Your task to perform on an android device: find which apps use the phone's location Image 0: 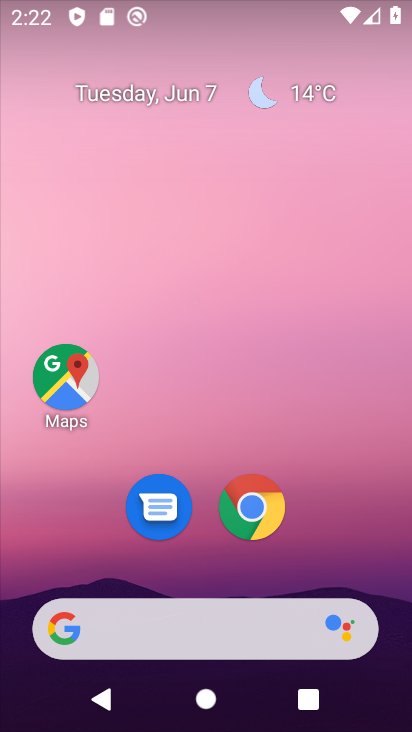
Step 0: drag from (347, 508) to (360, 84)
Your task to perform on an android device: find which apps use the phone's location Image 1: 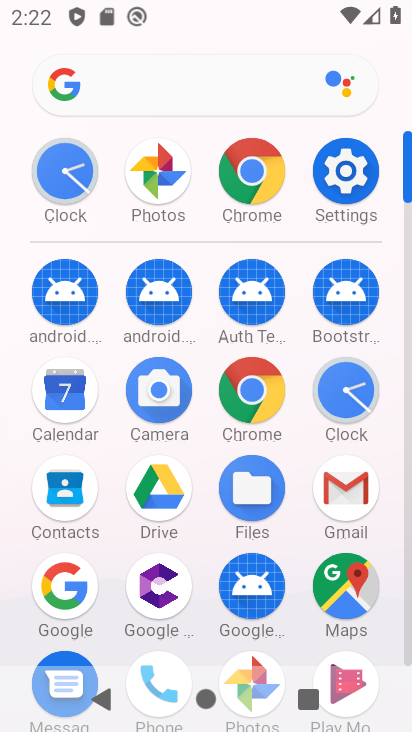
Step 1: click (350, 171)
Your task to perform on an android device: find which apps use the phone's location Image 2: 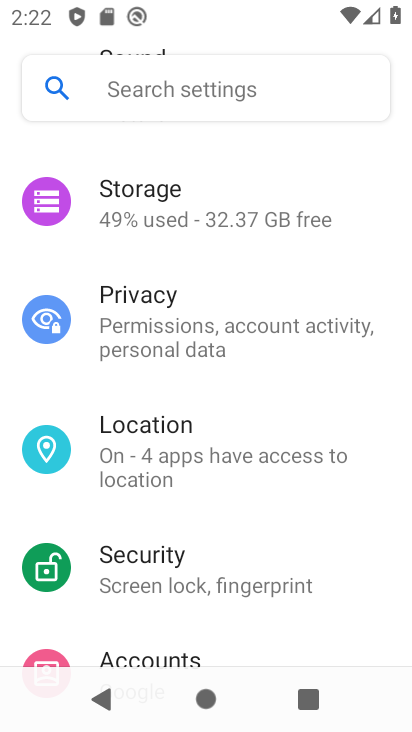
Step 2: click (214, 431)
Your task to perform on an android device: find which apps use the phone's location Image 3: 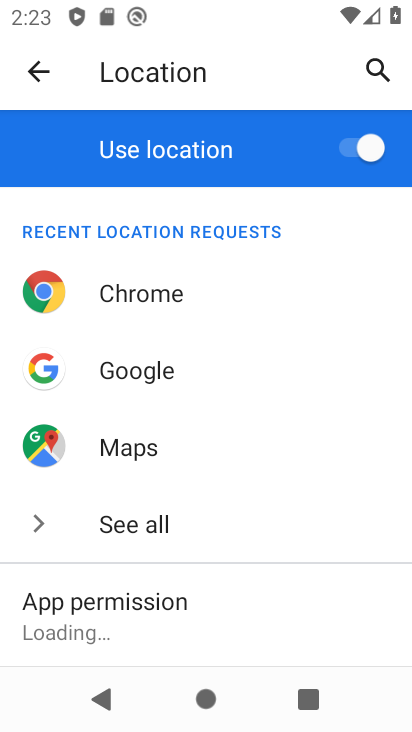
Step 3: drag from (223, 559) to (257, 158)
Your task to perform on an android device: find which apps use the phone's location Image 4: 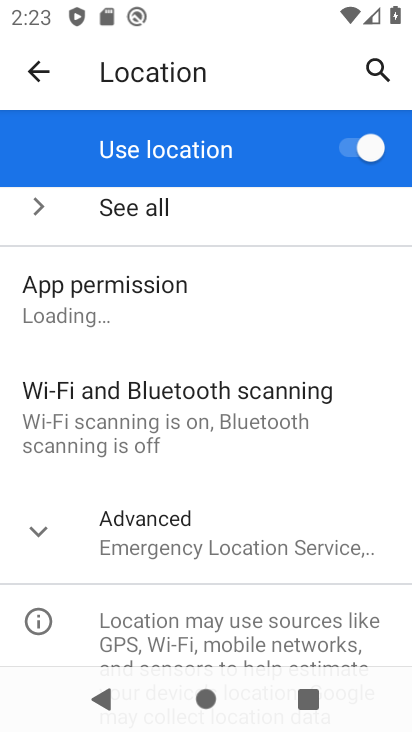
Step 4: drag from (239, 277) to (181, 597)
Your task to perform on an android device: find which apps use the phone's location Image 5: 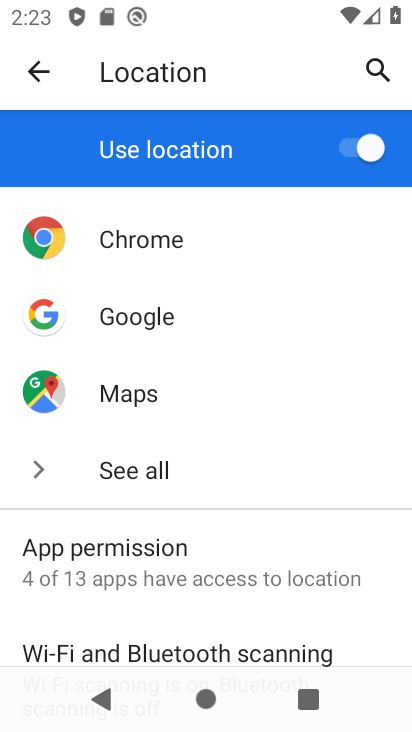
Step 5: click (132, 580)
Your task to perform on an android device: find which apps use the phone's location Image 6: 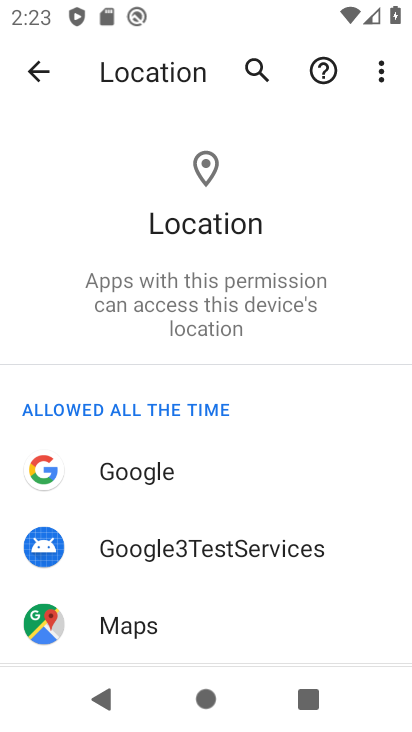
Step 6: drag from (162, 552) to (215, 334)
Your task to perform on an android device: find which apps use the phone's location Image 7: 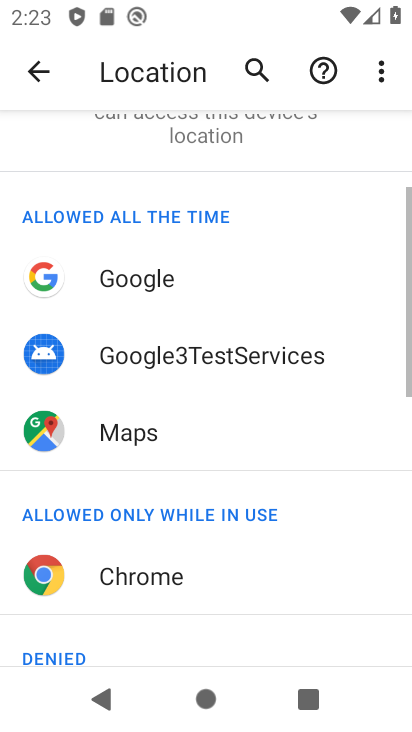
Step 7: click (215, 334)
Your task to perform on an android device: find which apps use the phone's location Image 8: 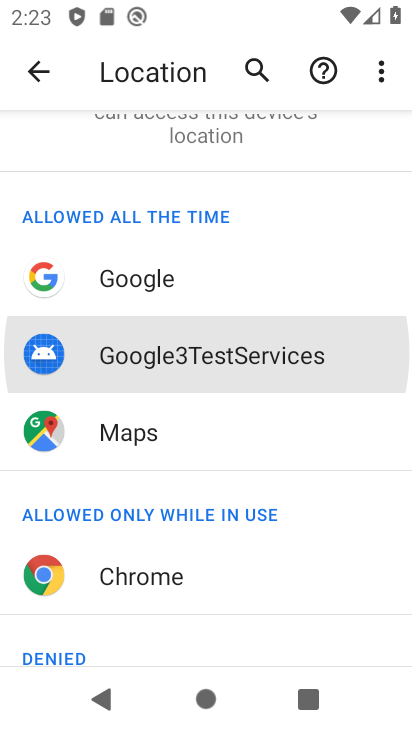
Step 8: drag from (215, 334) to (207, 394)
Your task to perform on an android device: find which apps use the phone's location Image 9: 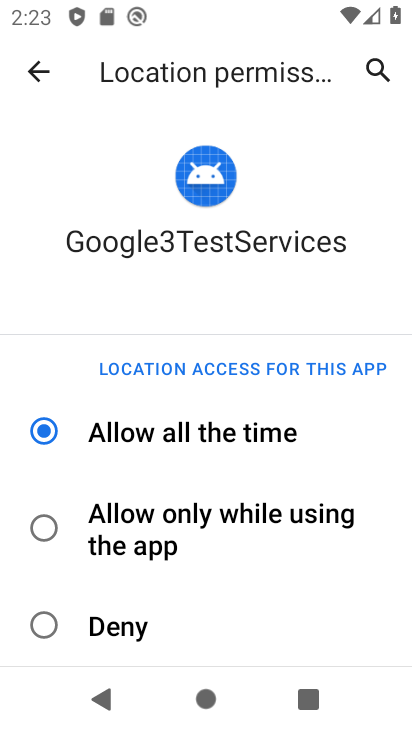
Step 9: click (39, 60)
Your task to perform on an android device: find which apps use the phone's location Image 10: 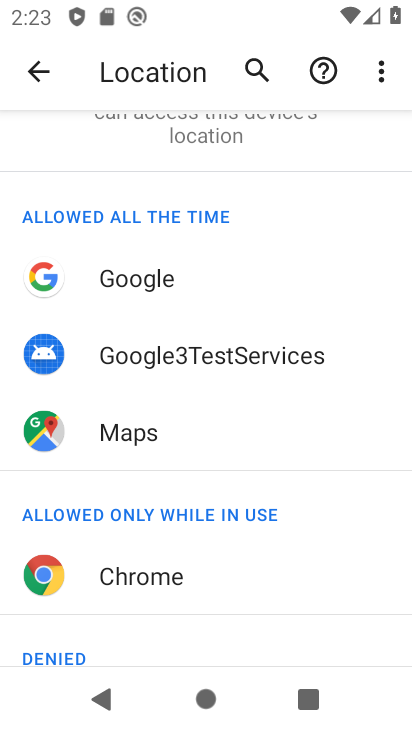
Step 10: task complete